Your task to perform on an android device: turn pop-ups on in chrome Image 0: 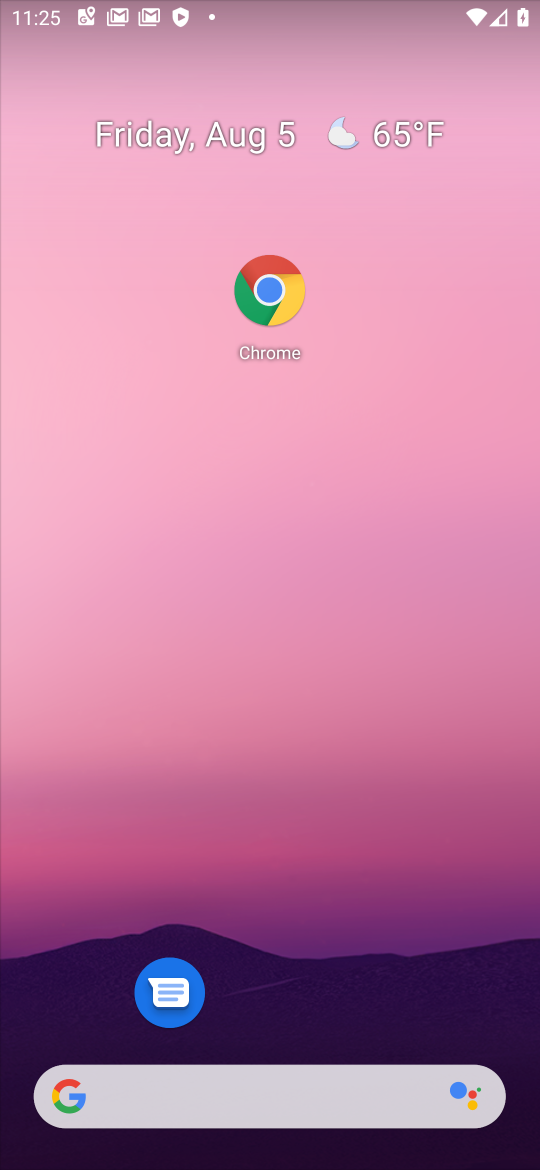
Step 0: drag from (397, 1007) to (256, 161)
Your task to perform on an android device: turn pop-ups on in chrome Image 1: 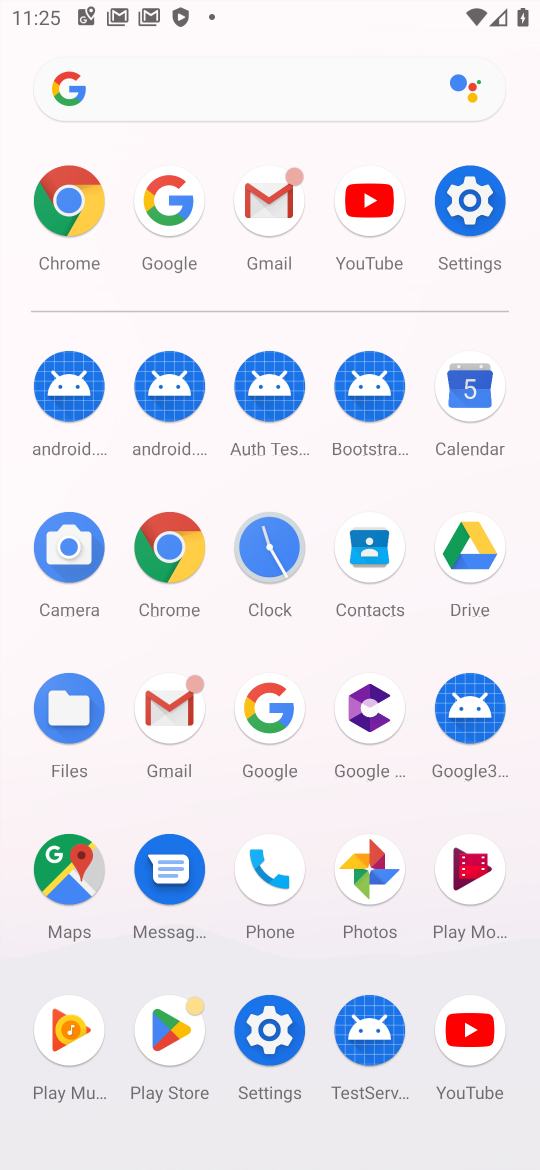
Step 1: click (50, 199)
Your task to perform on an android device: turn pop-ups on in chrome Image 2: 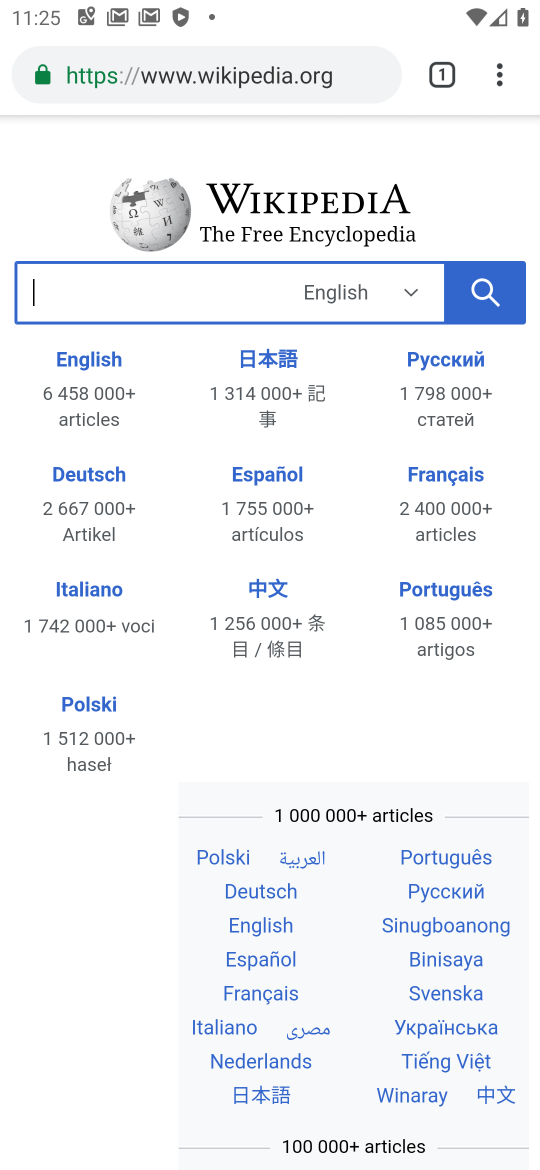
Step 2: drag from (503, 98) to (352, 931)
Your task to perform on an android device: turn pop-ups on in chrome Image 3: 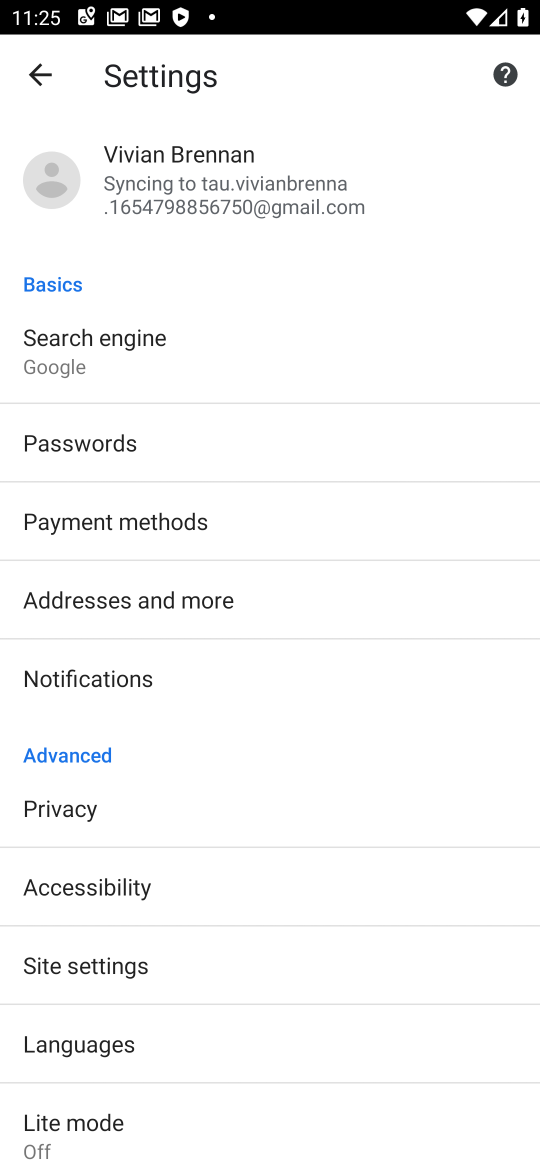
Step 3: click (225, 968)
Your task to perform on an android device: turn pop-ups on in chrome Image 4: 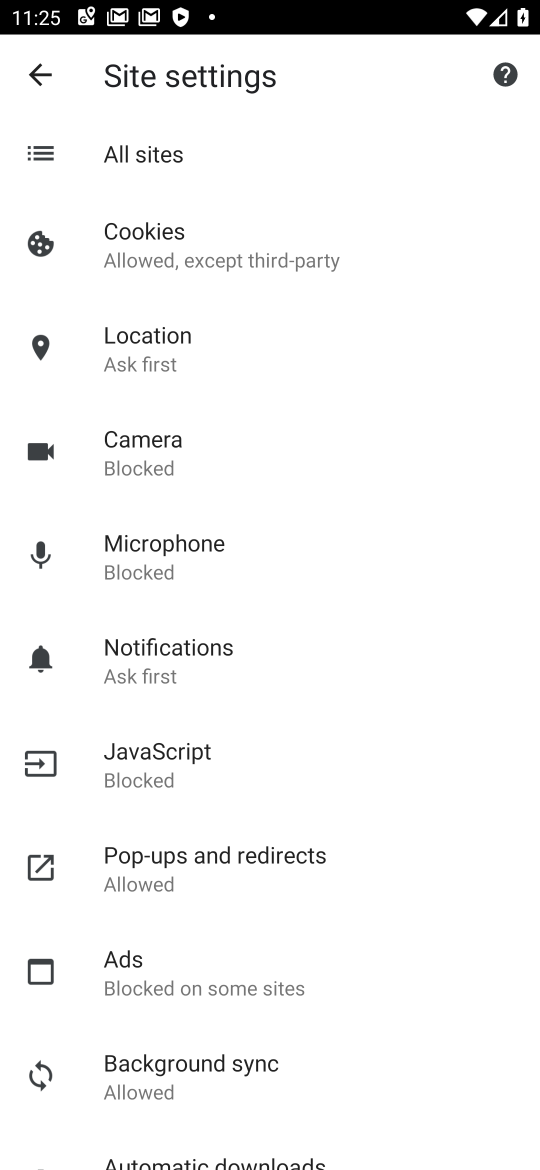
Step 4: click (197, 873)
Your task to perform on an android device: turn pop-ups on in chrome Image 5: 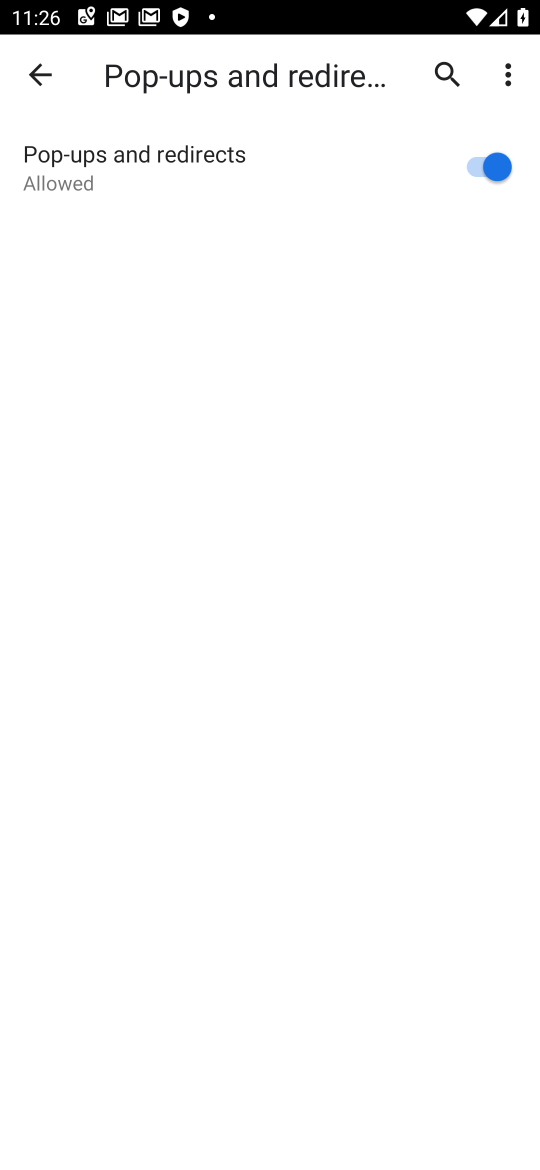
Step 5: task complete